Your task to perform on an android device: turn on priority inbox in the gmail app Image 0: 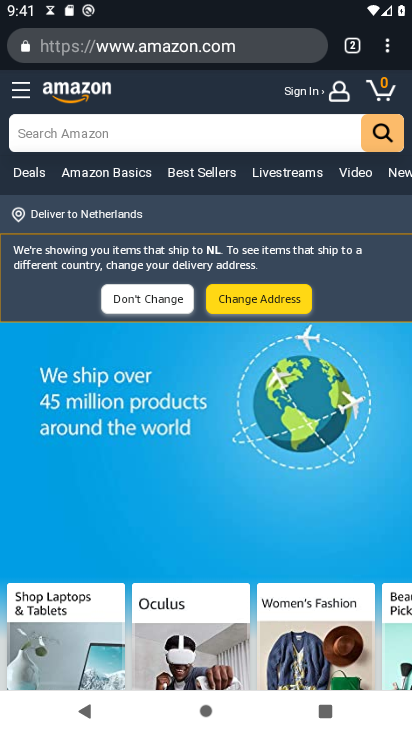
Step 0: press home button
Your task to perform on an android device: turn on priority inbox in the gmail app Image 1: 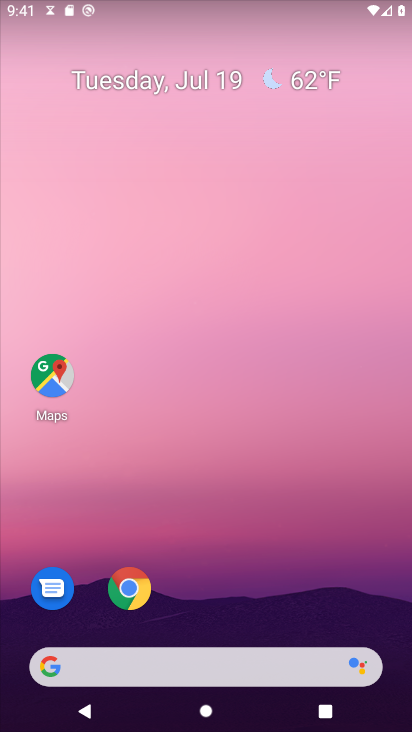
Step 1: drag from (190, 579) to (135, 50)
Your task to perform on an android device: turn on priority inbox in the gmail app Image 2: 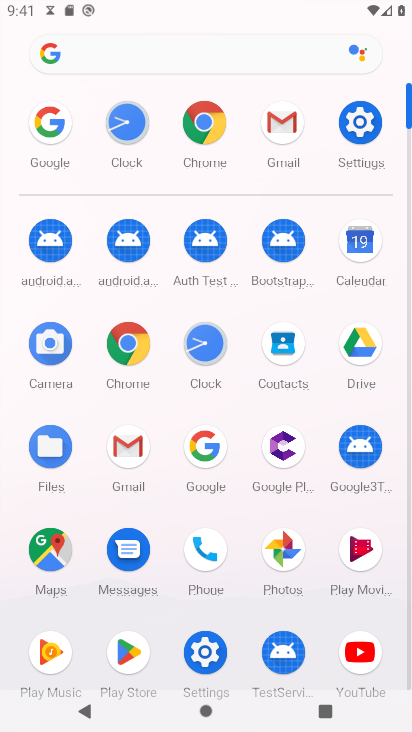
Step 2: click (282, 141)
Your task to perform on an android device: turn on priority inbox in the gmail app Image 3: 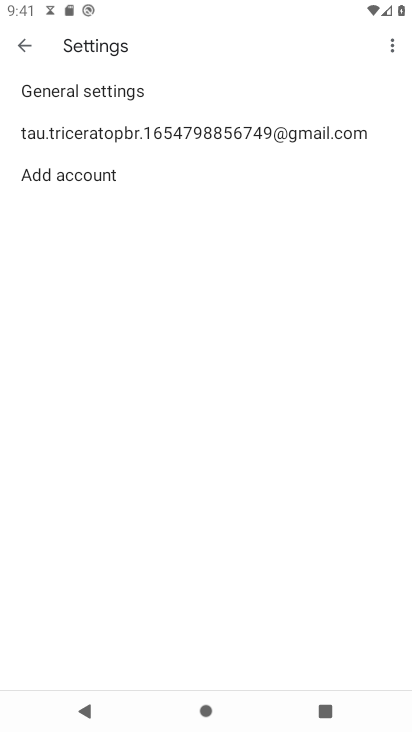
Step 3: click (204, 141)
Your task to perform on an android device: turn on priority inbox in the gmail app Image 4: 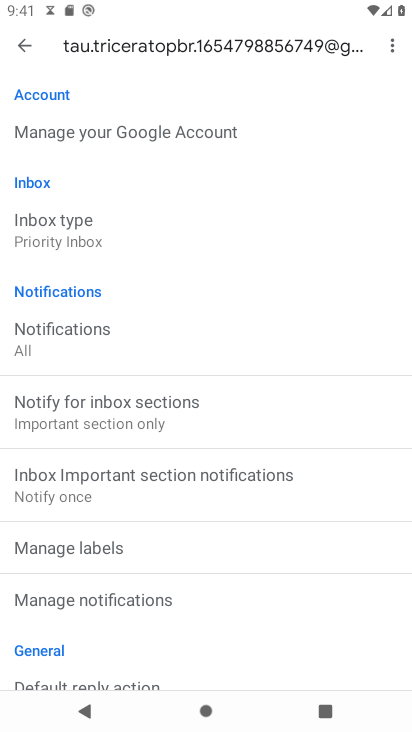
Step 4: task complete